Your task to perform on an android device: What is the capital of Sweden? Image 0: 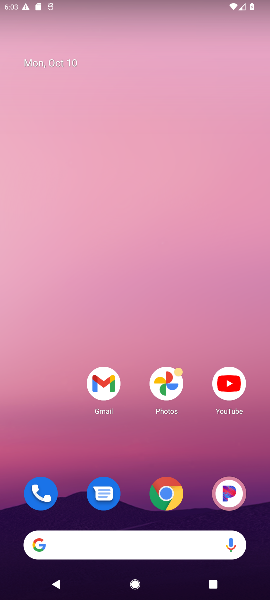
Step 0: task impossible